Your task to perform on an android device: toggle pop-ups in chrome Image 0: 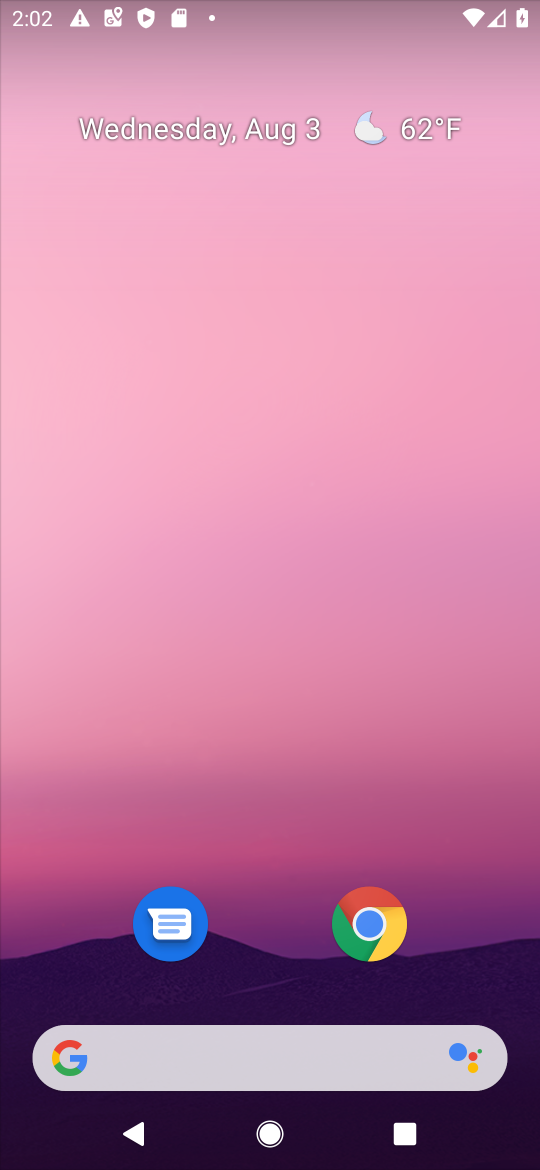
Step 0: click (369, 924)
Your task to perform on an android device: toggle pop-ups in chrome Image 1: 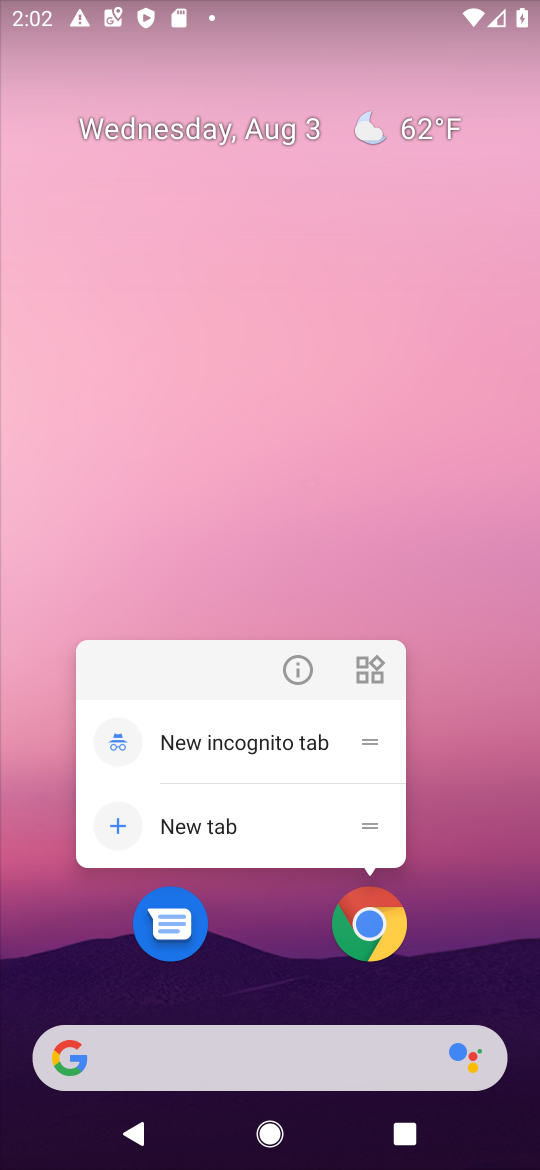
Step 1: click (370, 919)
Your task to perform on an android device: toggle pop-ups in chrome Image 2: 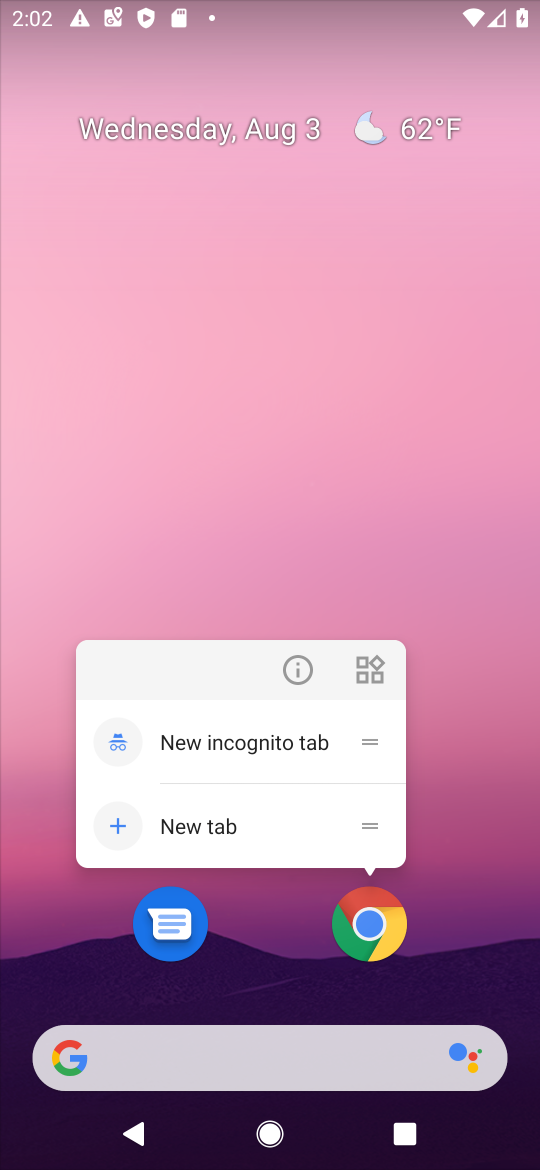
Step 2: click (369, 909)
Your task to perform on an android device: toggle pop-ups in chrome Image 3: 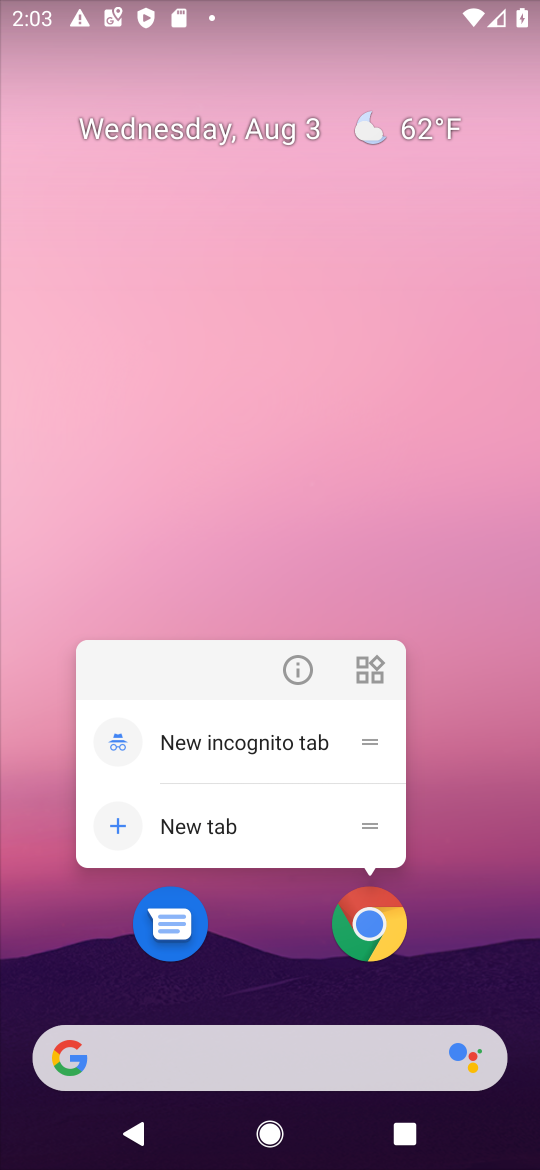
Step 3: click (370, 914)
Your task to perform on an android device: toggle pop-ups in chrome Image 4: 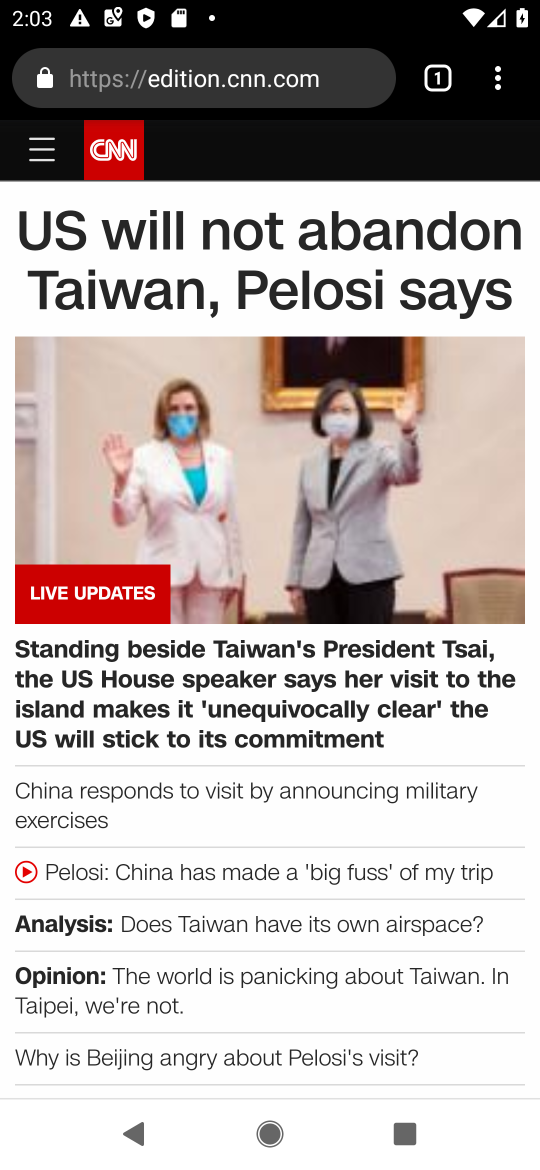
Step 4: click (503, 77)
Your task to perform on an android device: toggle pop-ups in chrome Image 5: 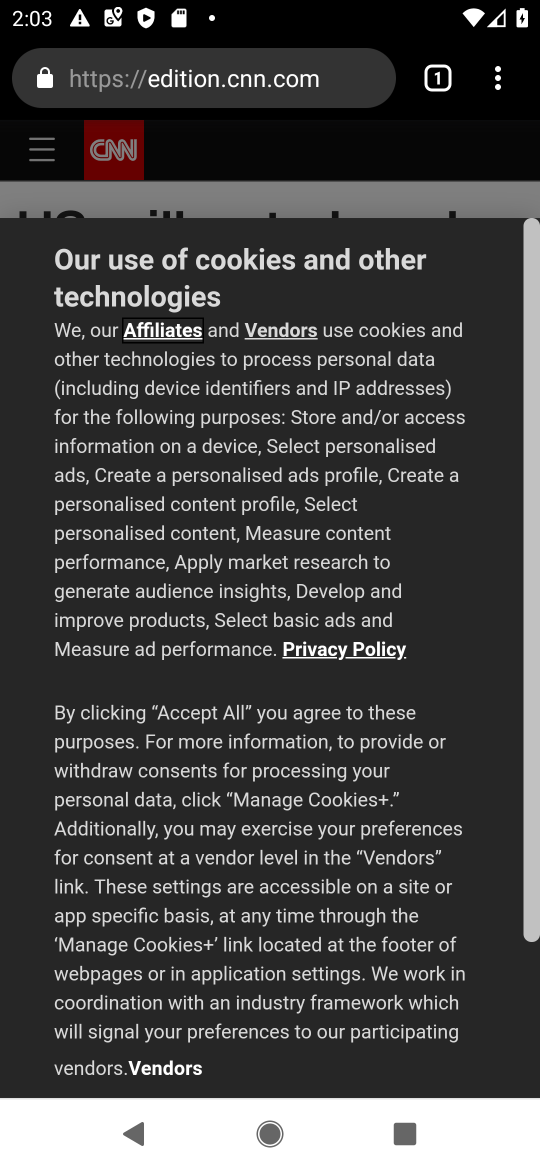
Step 5: drag from (282, 969) to (283, 583)
Your task to perform on an android device: toggle pop-ups in chrome Image 6: 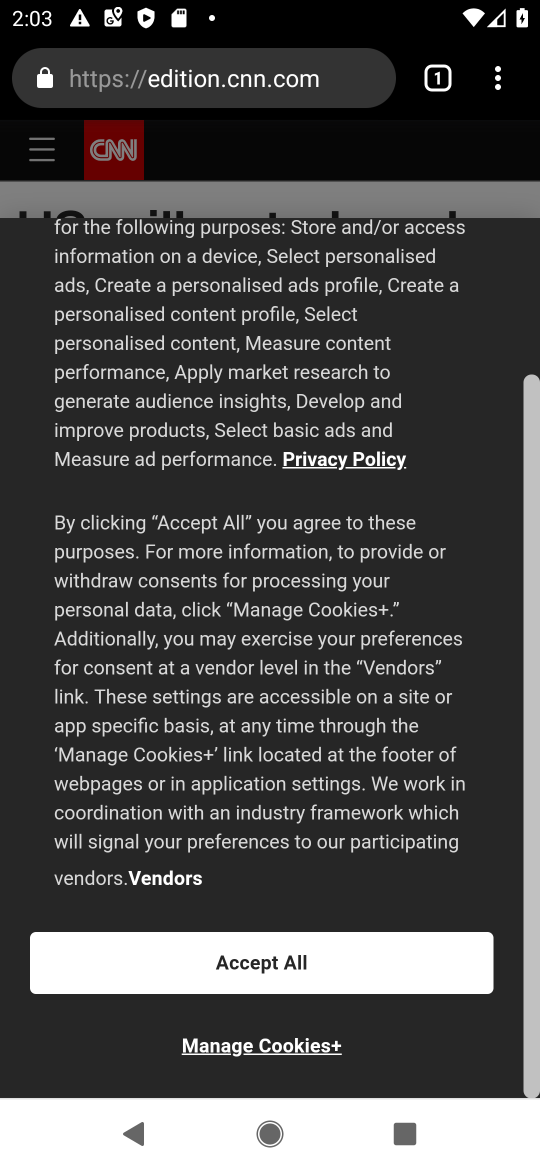
Step 6: click (496, 85)
Your task to perform on an android device: toggle pop-ups in chrome Image 7: 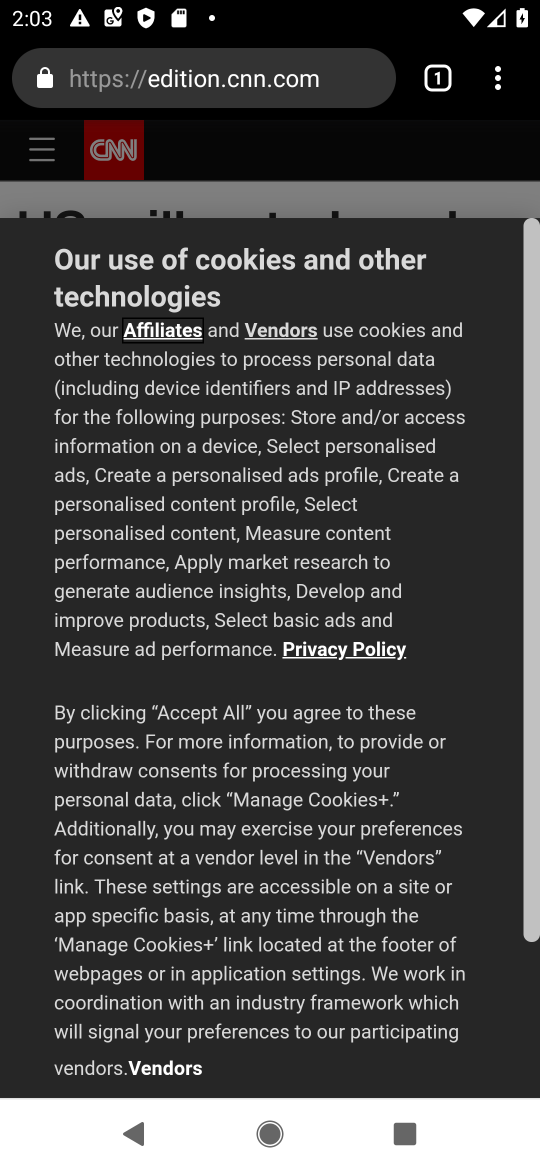
Step 7: click (504, 82)
Your task to perform on an android device: toggle pop-ups in chrome Image 8: 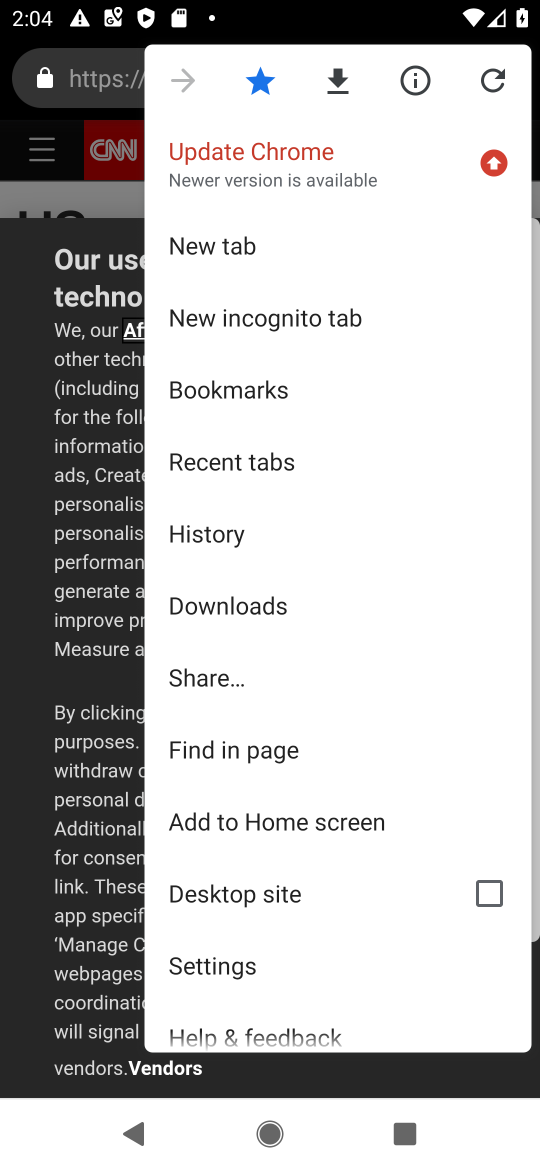
Step 8: click (257, 963)
Your task to perform on an android device: toggle pop-ups in chrome Image 9: 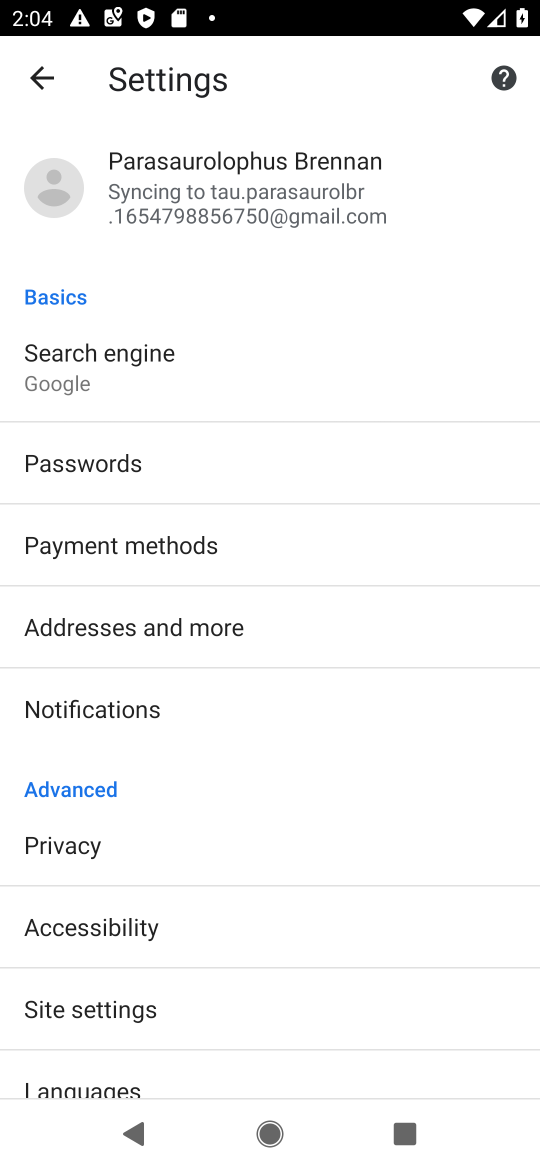
Step 9: click (161, 1004)
Your task to perform on an android device: toggle pop-ups in chrome Image 10: 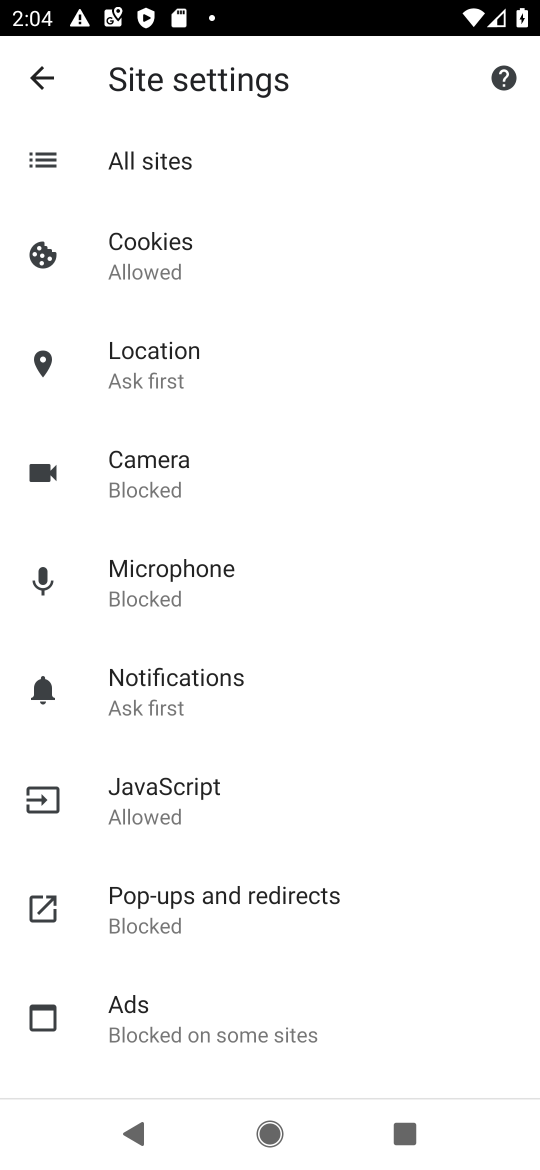
Step 10: click (209, 910)
Your task to perform on an android device: toggle pop-ups in chrome Image 11: 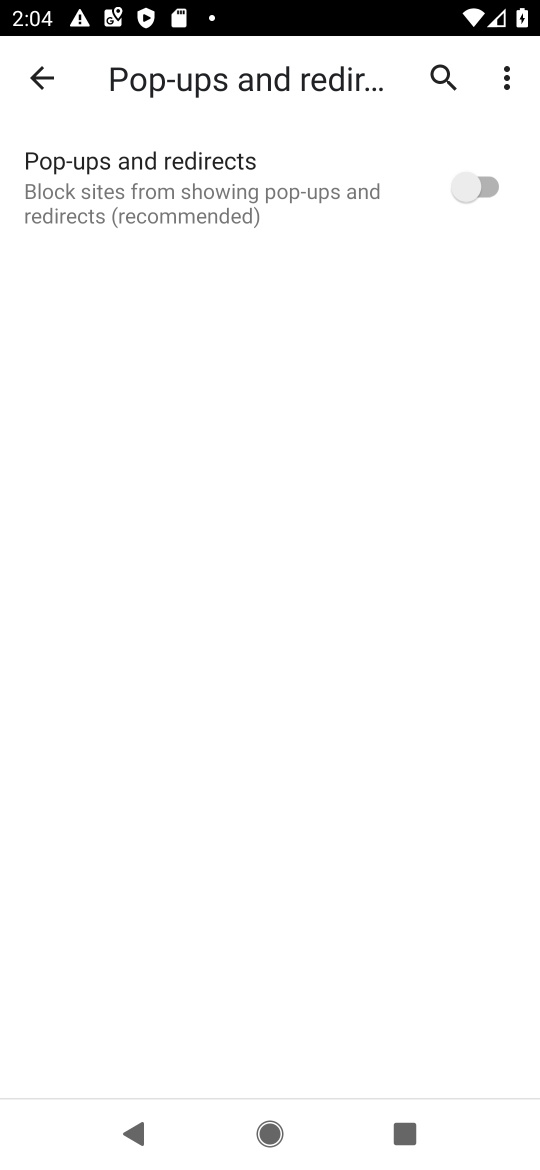
Step 11: click (481, 185)
Your task to perform on an android device: toggle pop-ups in chrome Image 12: 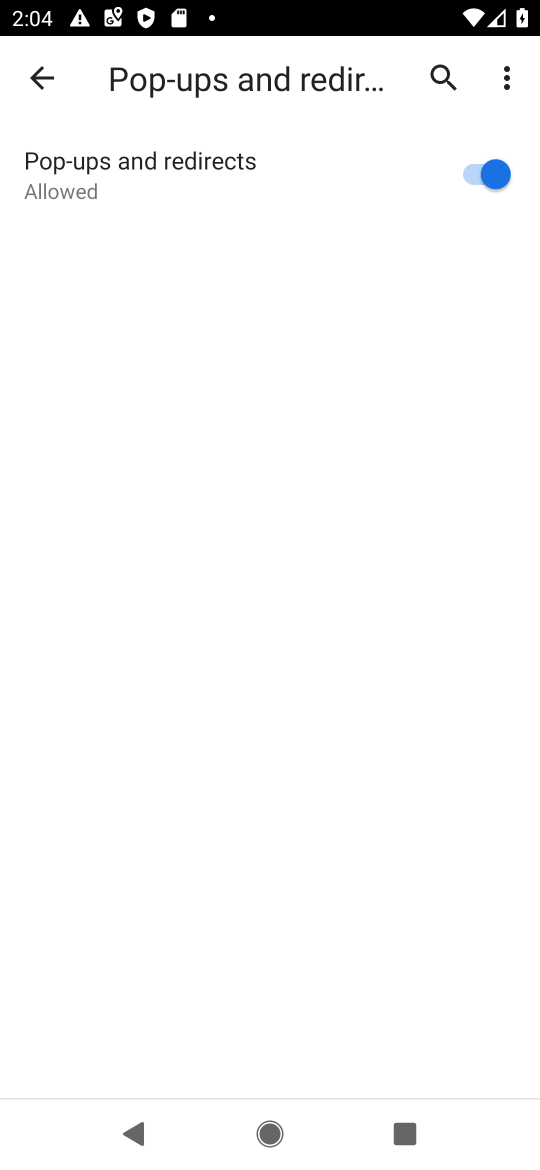
Step 12: task complete